Your task to perform on an android device: Go to display settings Image 0: 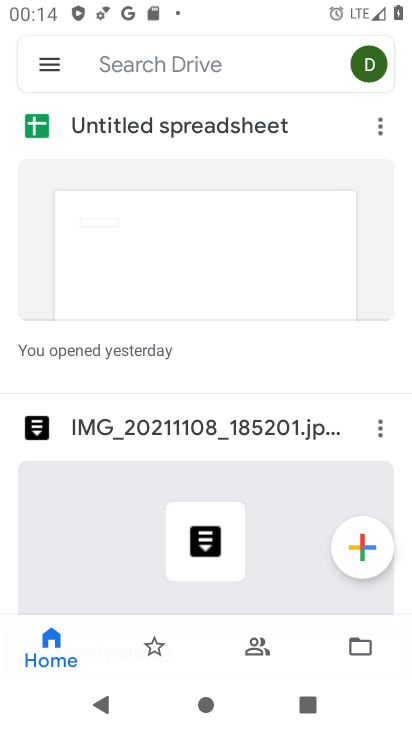
Step 0: press home button
Your task to perform on an android device: Go to display settings Image 1: 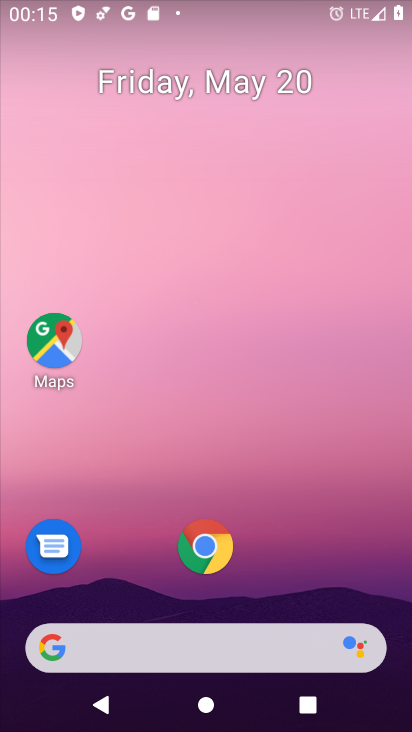
Step 1: drag from (315, 552) to (301, 150)
Your task to perform on an android device: Go to display settings Image 2: 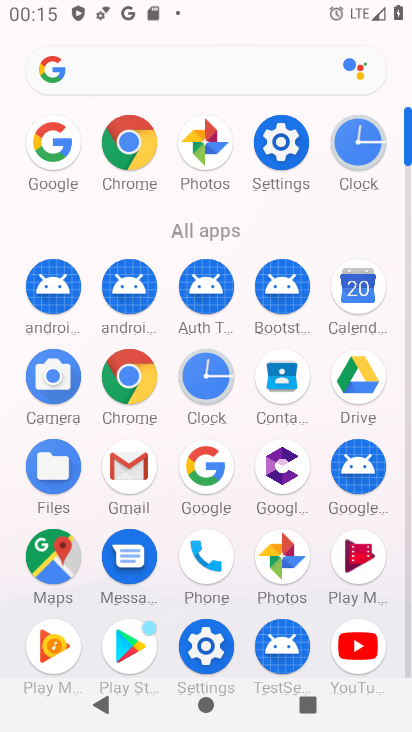
Step 2: click (283, 148)
Your task to perform on an android device: Go to display settings Image 3: 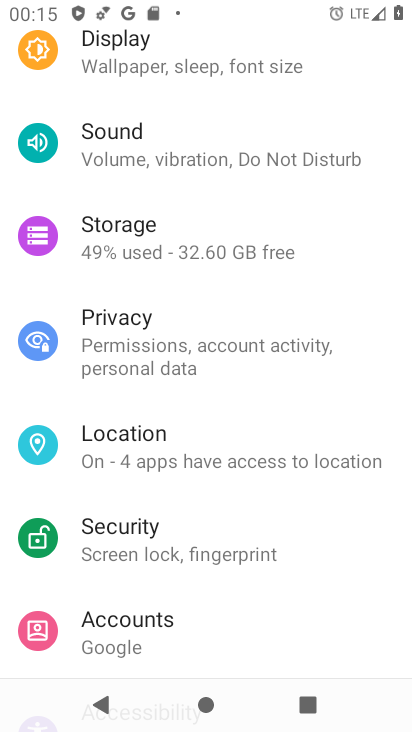
Step 3: drag from (221, 272) to (291, 597)
Your task to perform on an android device: Go to display settings Image 4: 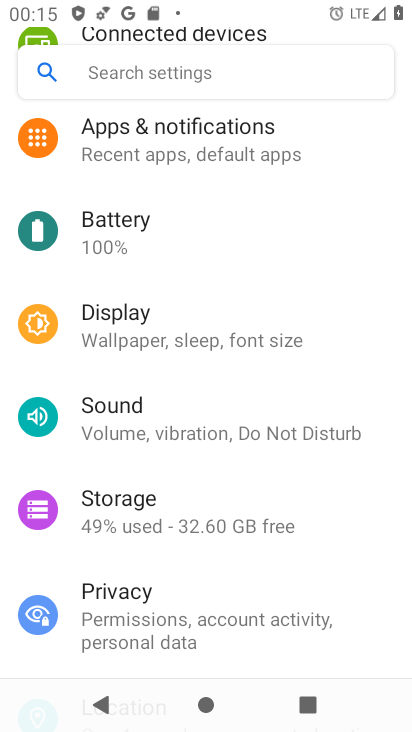
Step 4: click (244, 338)
Your task to perform on an android device: Go to display settings Image 5: 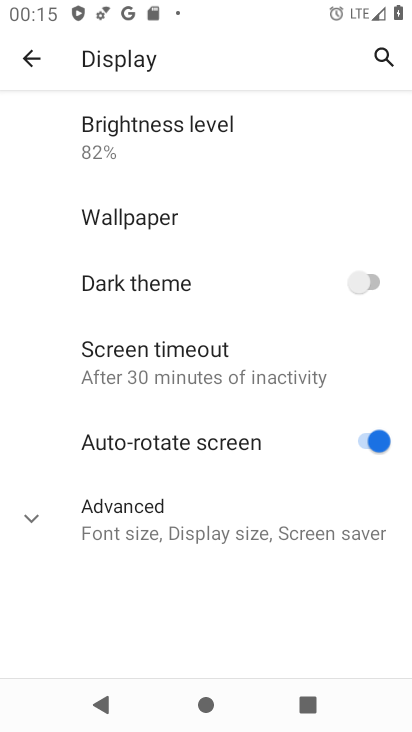
Step 5: task complete